Your task to perform on an android device: set the stopwatch Image 0: 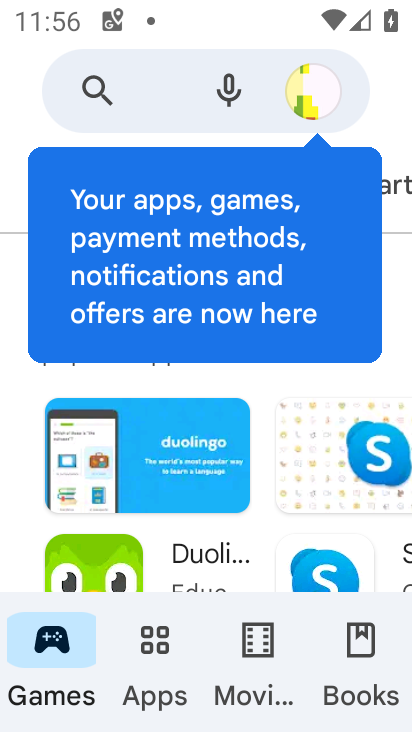
Step 0: press home button
Your task to perform on an android device: set the stopwatch Image 1: 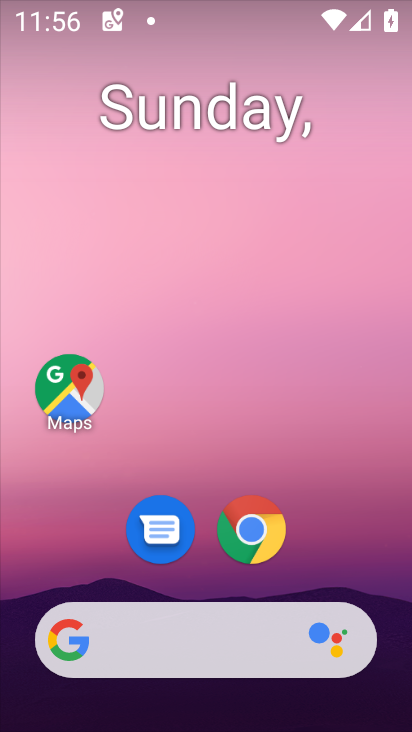
Step 1: drag from (378, 576) to (380, 279)
Your task to perform on an android device: set the stopwatch Image 2: 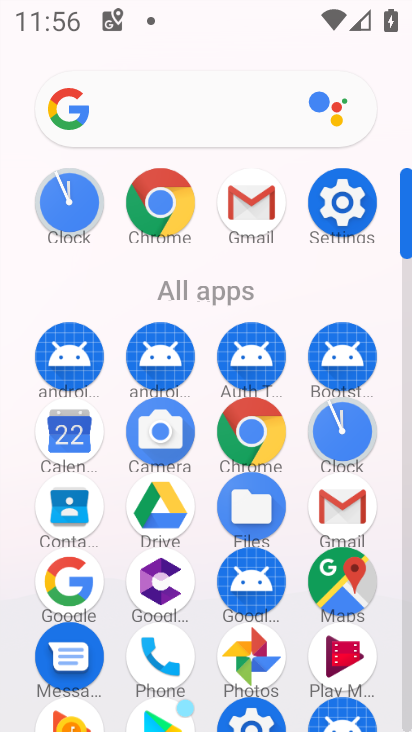
Step 2: click (358, 443)
Your task to perform on an android device: set the stopwatch Image 3: 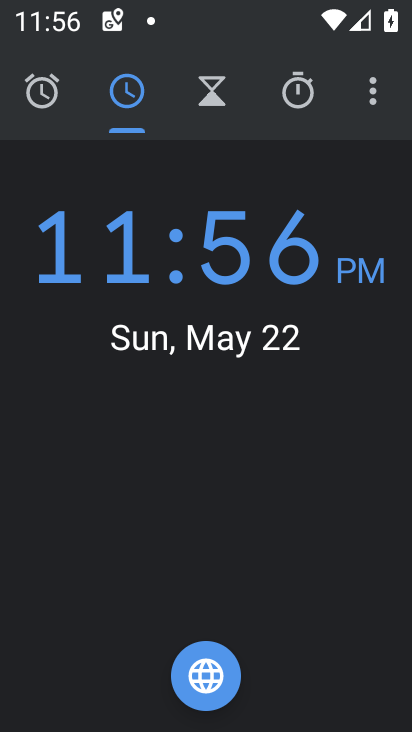
Step 3: click (304, 108)
Your task to perform on an android device: set the stopwatch Image 4: 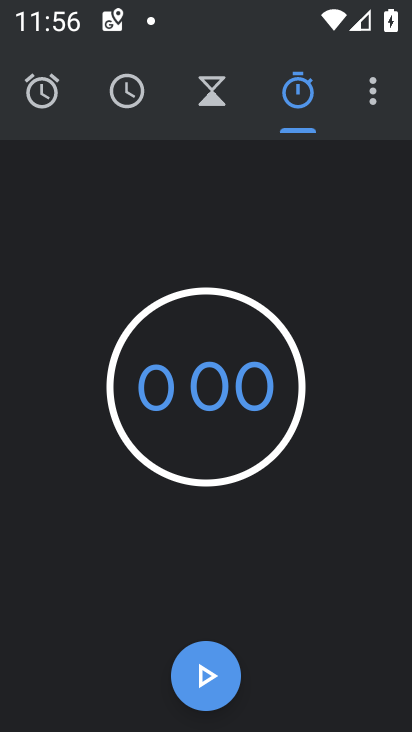
Step 4: click (229, 679)
Your task to perform on an android device: set the stopwatch Image 5: 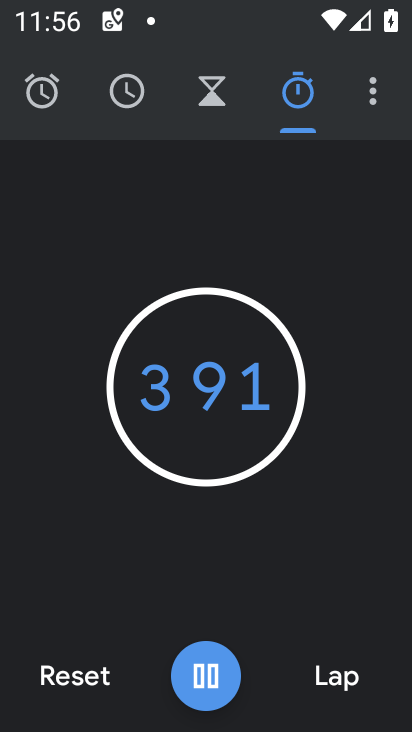
Step 5: task complete